Your task to perform on an android device: Search for Mexican restaurants on Maps Image 0: 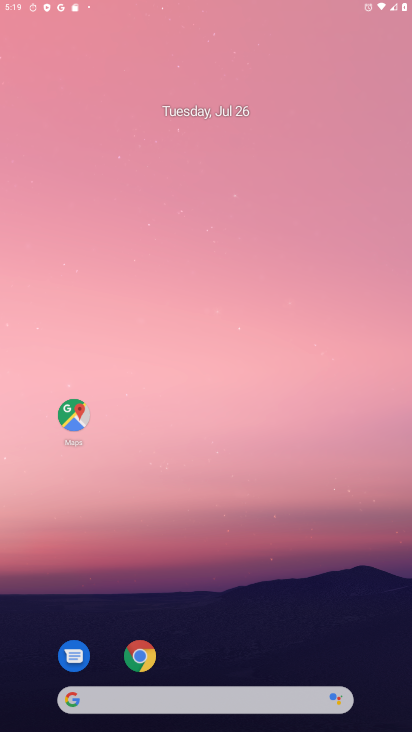
Step 0: press home button
Your task to perform on an android device: Search for Mexican restaurants on Maps Image 1: 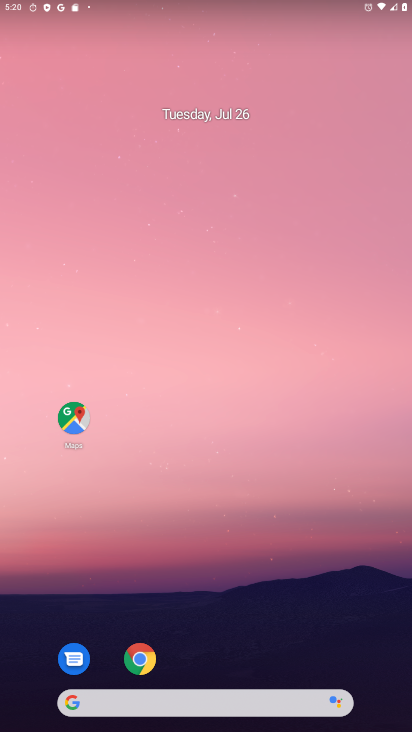
Step 1: click (74, 413)
Your task to perform on an android device: Search for Mexican restaurants on Maps Image 2: 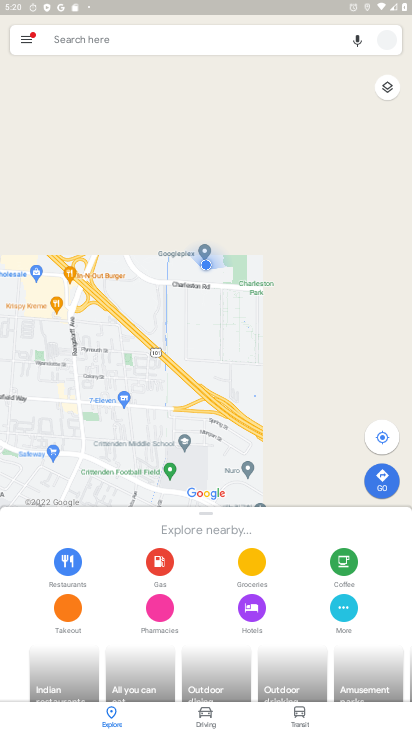
Step 2: click (80, 36)
Your task to perform on an android device: Search for Mexican restaurants on Maps Image 3: 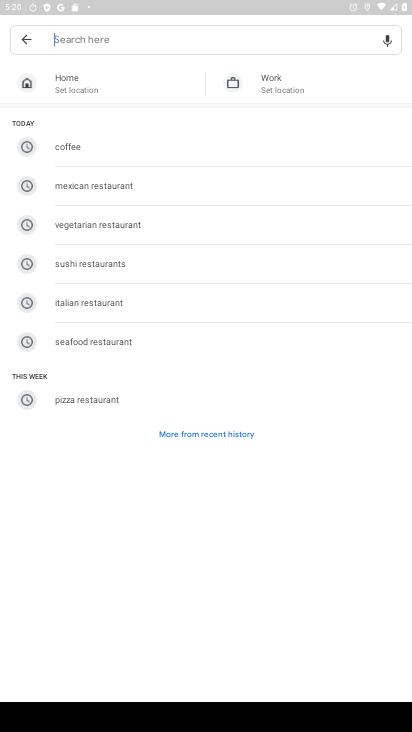
Step 3: click (106, 188)
Your task to perform on an android device: Search for Mexican restaurants on Maps Image 4: 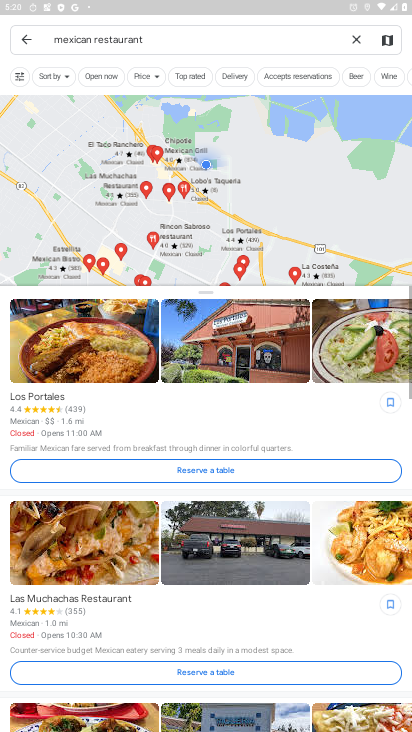
Step 4: task complete